Your task to perform on an android device: Open internet settings Image 0: 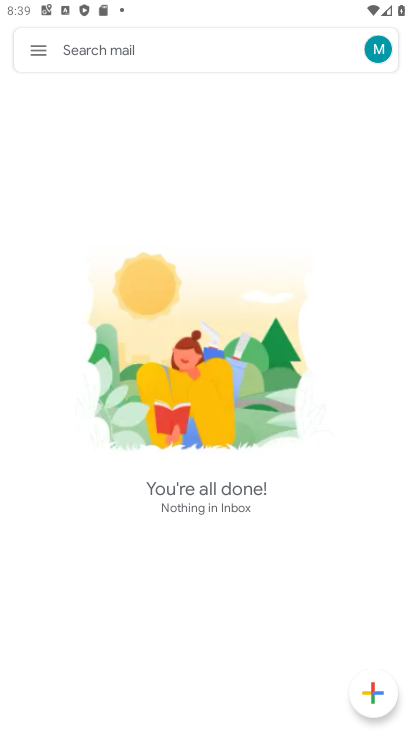
Step 0: click (385, 546)
Your task to perform on an android device: Open internet settings Image 1: 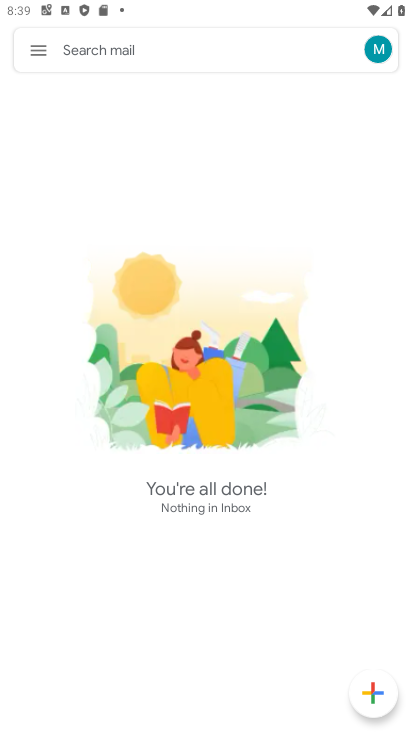
Step 1: press home button
Your task to perform on an android device: Open internet settings Image 2: 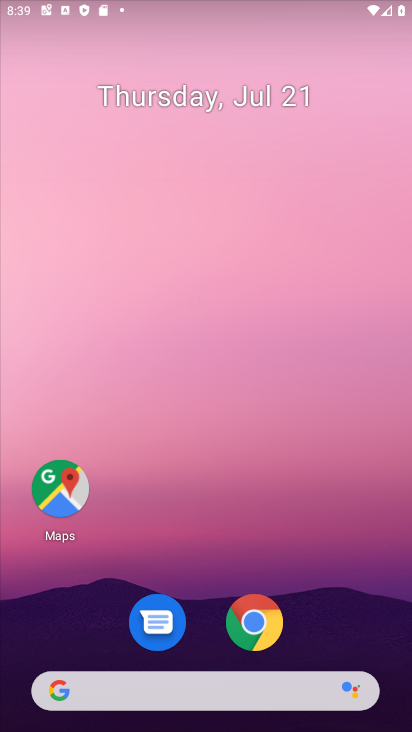
Step 2: drag from (145, 491) to (201, 40)
Your task to perform on an android device: Open internet settings Image 3: 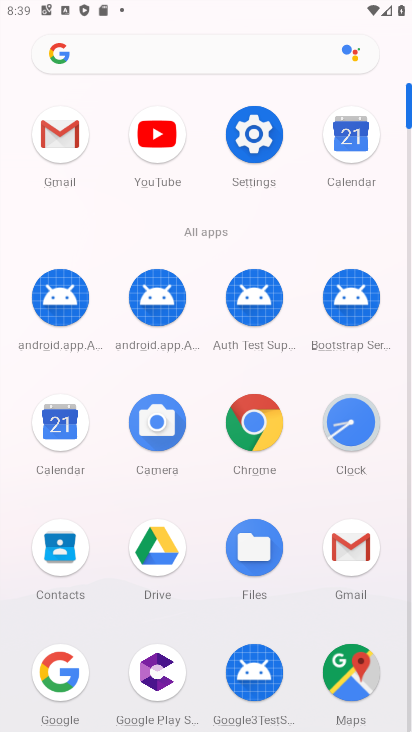
Step 3: click (251, 126)
Your task to perform on an android device: Open internet settings Image 4: 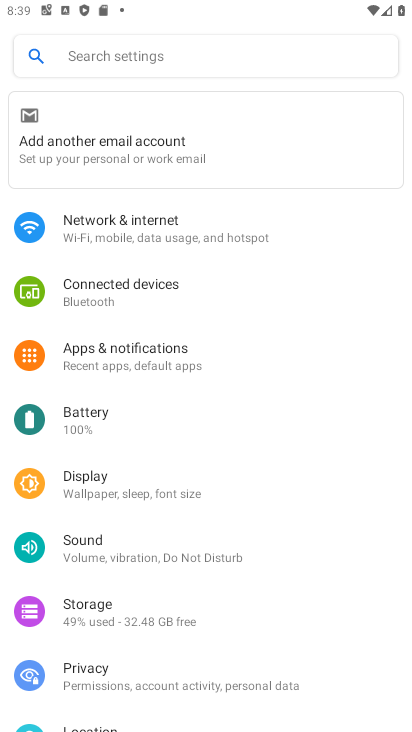
Step 4: click (219, 239)
Your task to perform on an android device: Open internet settings Image 5: 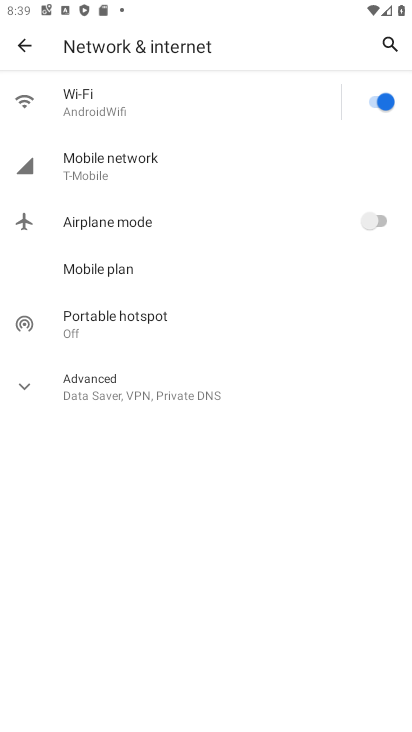
Step 5: task complete